Your task to perform on an android device: Go to Google maps Image 0: 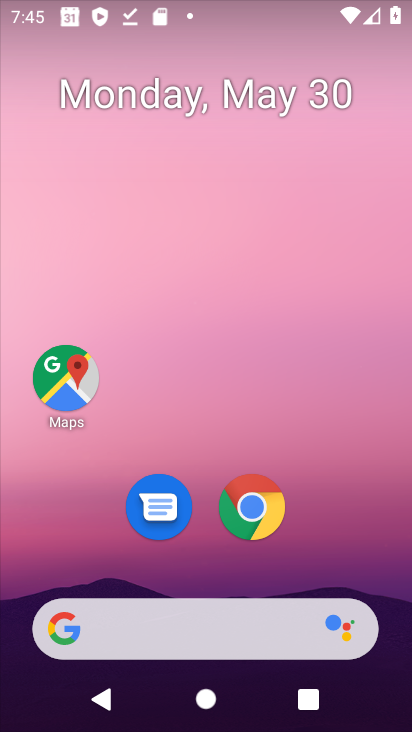
Step 0: drag from (365, 535) to (365, 206)
Your task to perform on an android device: Go to Google maps Image 1: 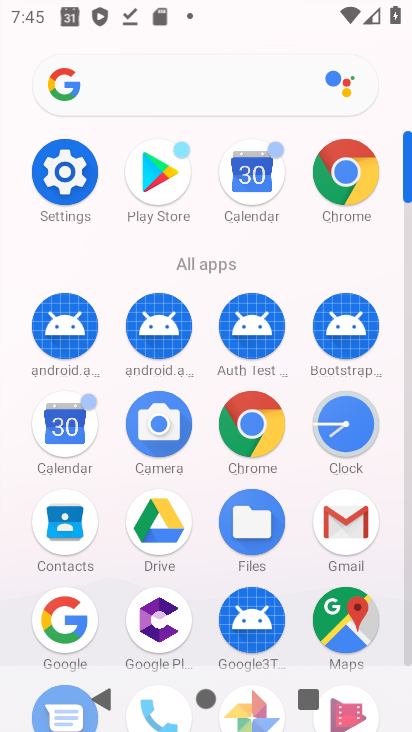
Step 1: click (341, 609)
Your task to perform on an android device: Go to Google maps Image 2: 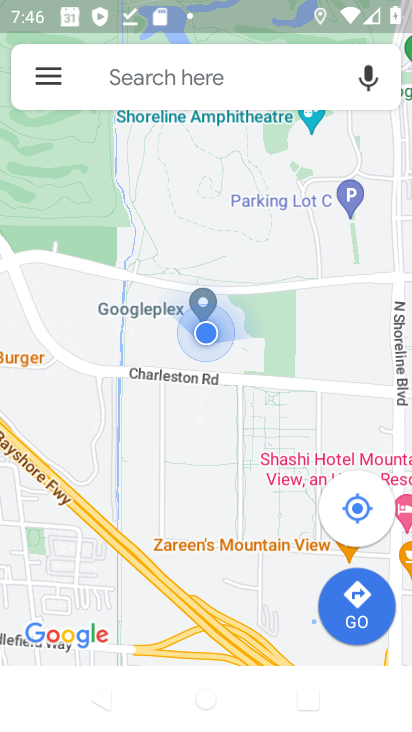
Step 2: task complete